Your task to perform on an android device: Open internet settings Image 0: 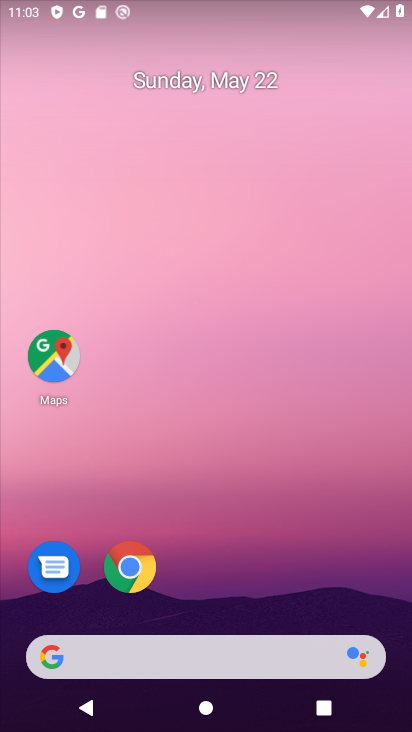
Step 0: drag from (214, 10) to (196, 429)
Your task to perform on an android device: Open internet settings Image 1: 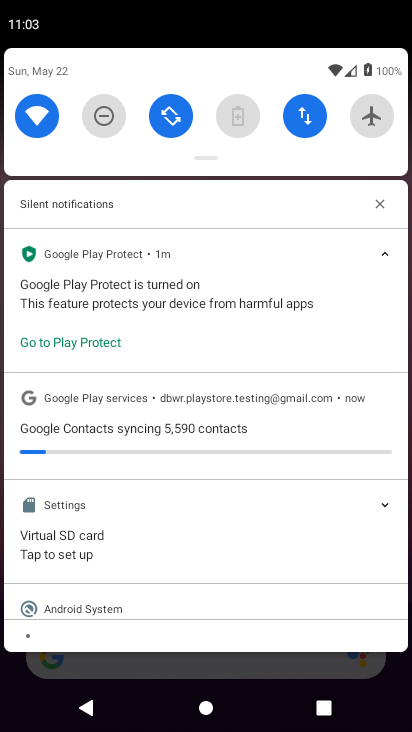
Step 1: click (311, 111)
Your task to perform on an android device: Open internet settings Image 2: 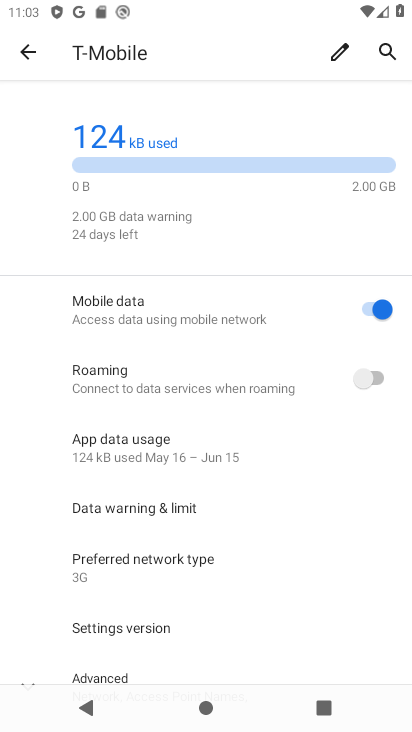
Step 2: task complete